Your task to perform on an android device: turn on notifications settings in the gmail app Image 0: 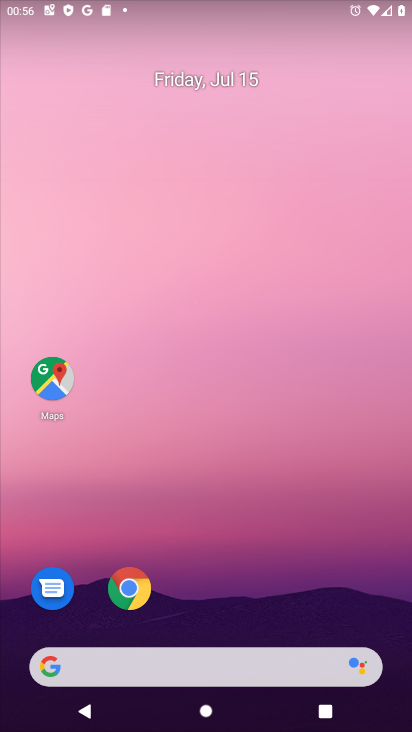
Step 0: press home button
Your task to perform on an android device: turn on notifications settings in the gmail app Image 1: 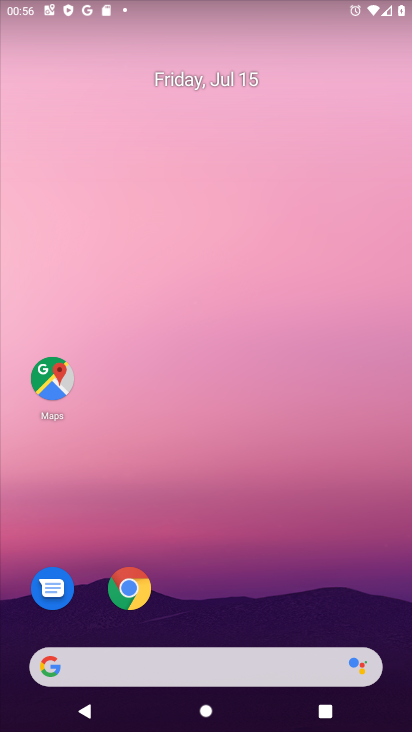
Step 1: drag from (175, 655) to (279, 88)
Your task to perform on an android device: turn on notifications settings in the gmail app Image 2: 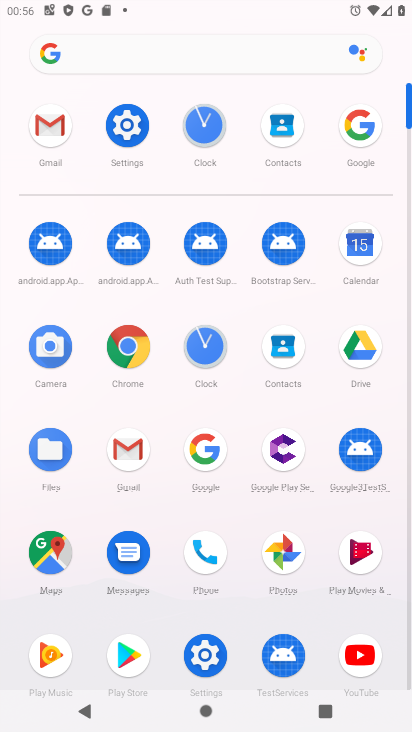
Step 2: click (42, 132)
Your task to perform on an android device: turn on notifications settings in the gmail app Image 3: 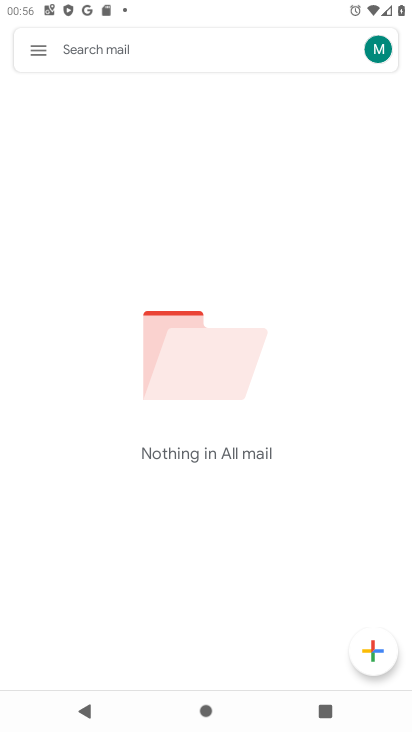
Step 3: click (37, 56)
Your task to perform on an android device: turn on notifications settings in the gmail app Image 4: 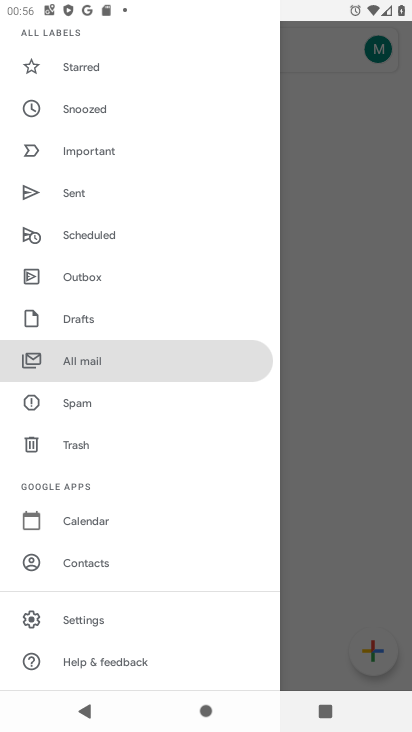
Step 4: click (98, 624)
Your task to perform on an android device: turn on notifications settings in the gmail app Image 5: 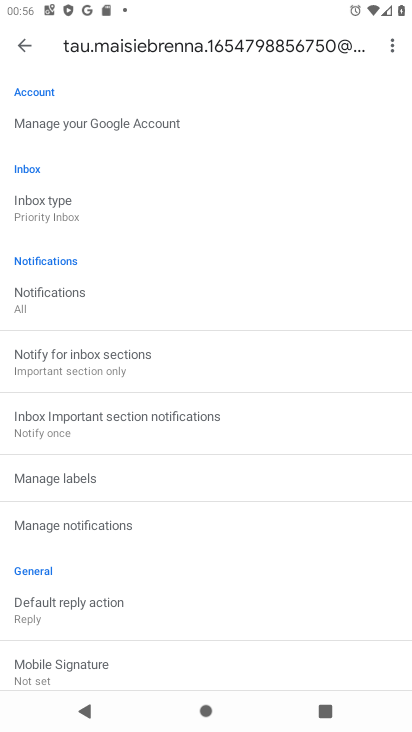
Step 5: click (68, 300)
Your task to perform on an android device: turn on notifications settings in the gmail app Image 6: 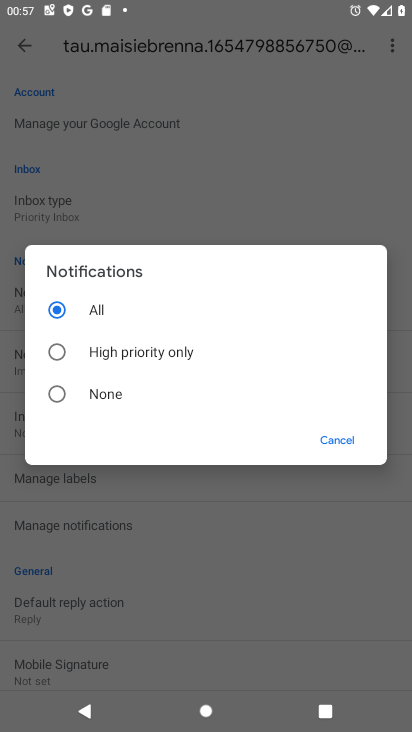
Step 6: task complete